Your task to perform on an android device: find which apps use the phone's location Image 0: 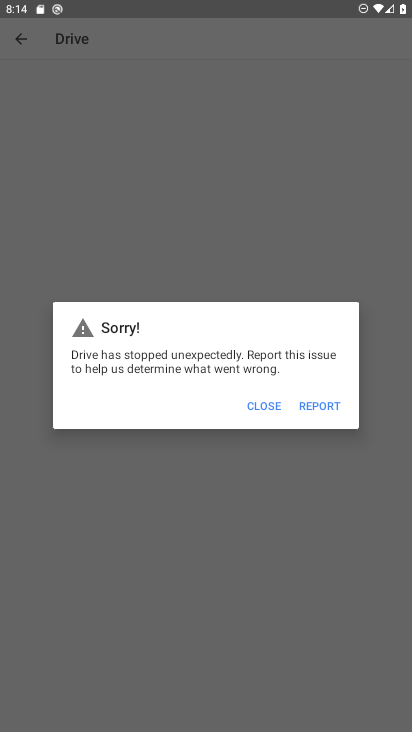
Step 0: press home button
Your task to perform on an android device: find which apps use the phone's location Image 1: 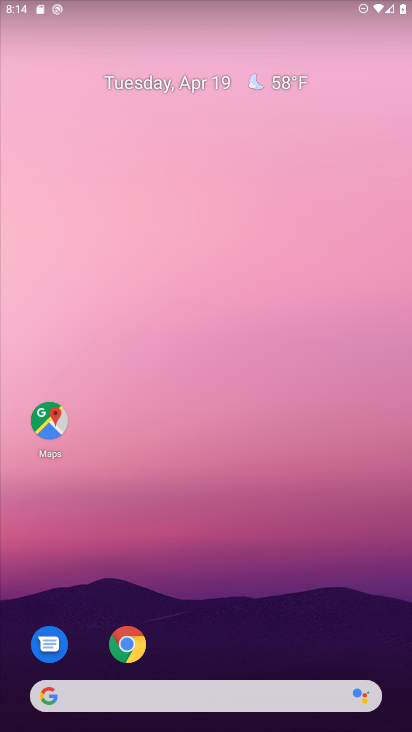
Step 1: drag from (178, 677) to (206, 281)
Your task to perform on an android device: find which apps use the phone's location Image 2: 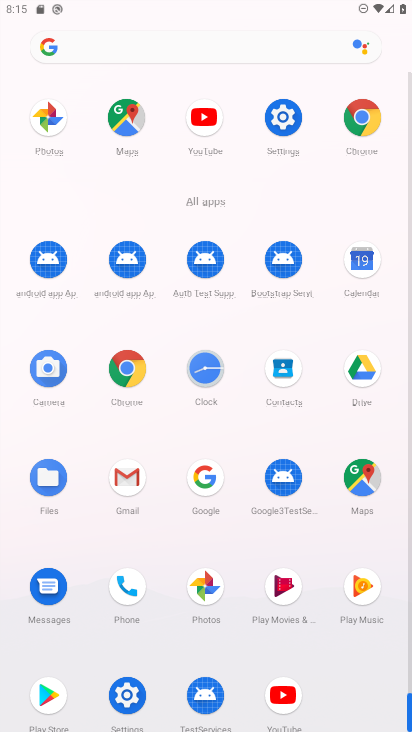
Step 2: click (359, 482)
Your task to perform on an android device: find which apps use the phone's location Image 3: 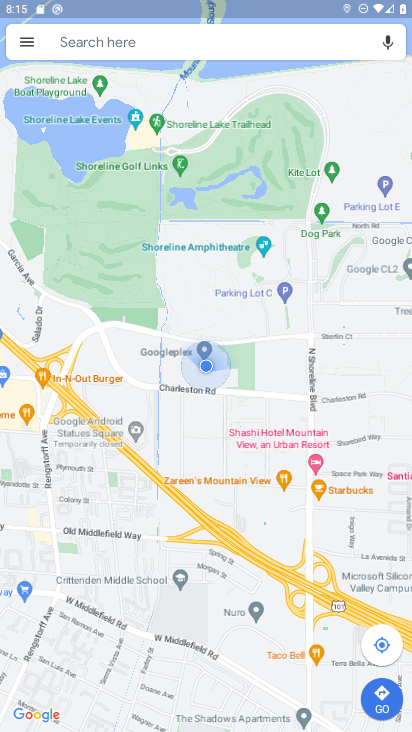
Step 3: task complete